Your task to perform on an android device: star an email in the gmail app Image 0: 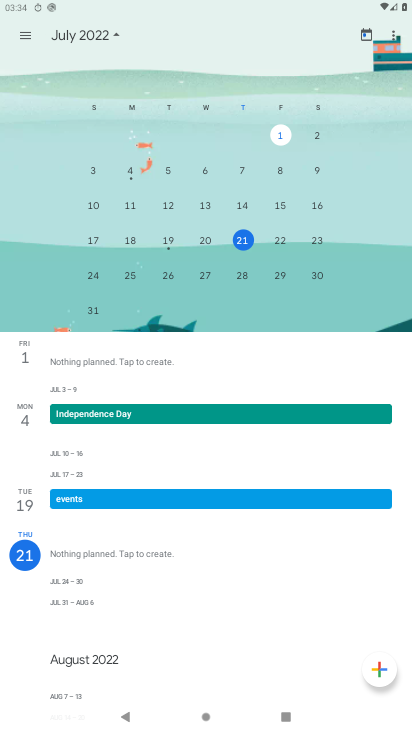
Step 0: press home button
Your task to perform on an android device: star an email in the gmail app Image 1: 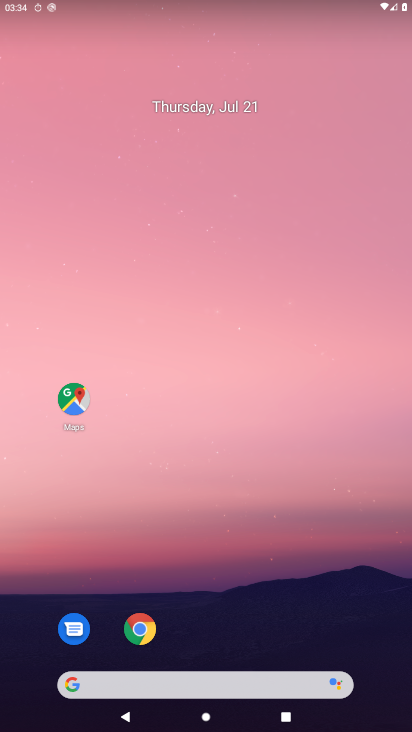
Step 1: drag from (27, 685) to (219, 144)
Your task to perform on an android device: star an email in the gmail app Image 2: 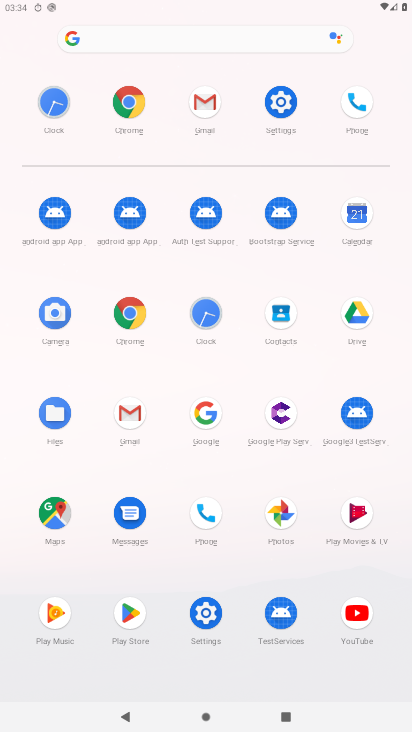
Step 2: click (201, 601)
Your task to perform on an android device: star an email in the gmail app Image 3: 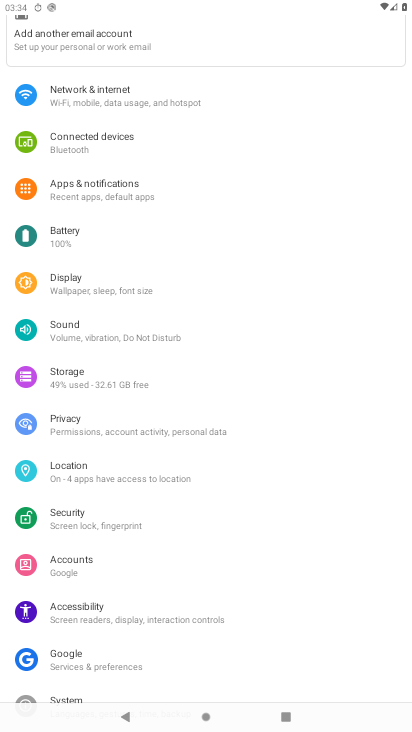
Step 3: press home button
Your task to perform on an android device: star an email in the gmail app Image 4: 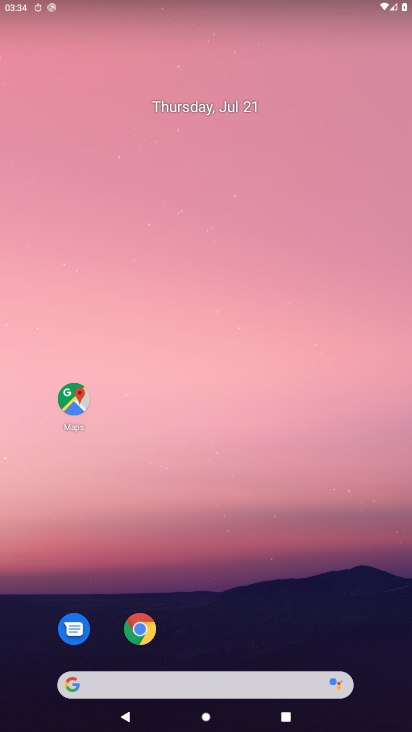
Step 4: drag from (134, 305) to (194, 88)
Your task to perform on an android device: star an email in the gmail app Image 5: 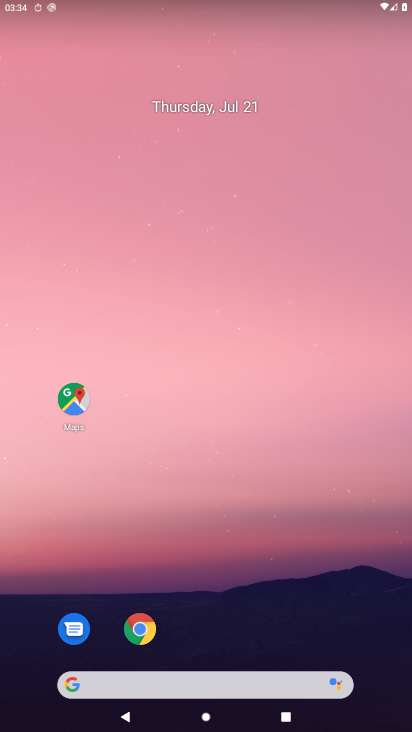
Step 5: drag from (32, 663) to (206, 20)
Your task to perform on an android device: star an email in the gmail app Image 6: 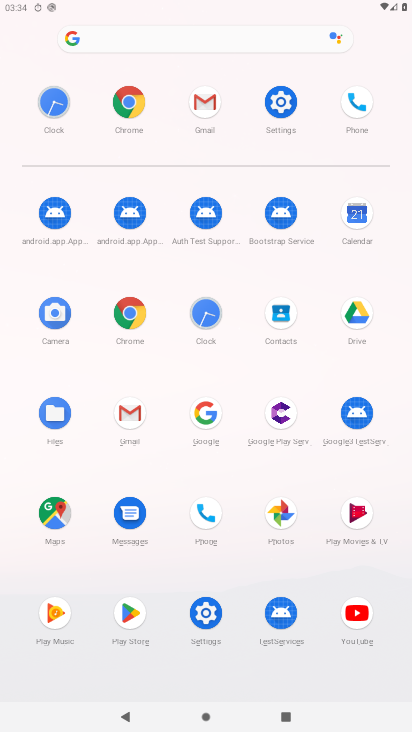
Step 6: click (125, 486)
Your task to perform on an android device: star an email in the gmail app Image 7: 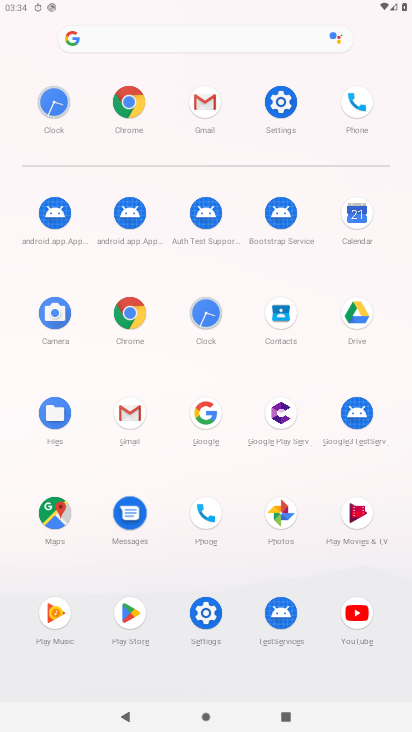
Step 7: click (125, 411)
Your task to perform on an android device: star an email in the gmail app Image 8: 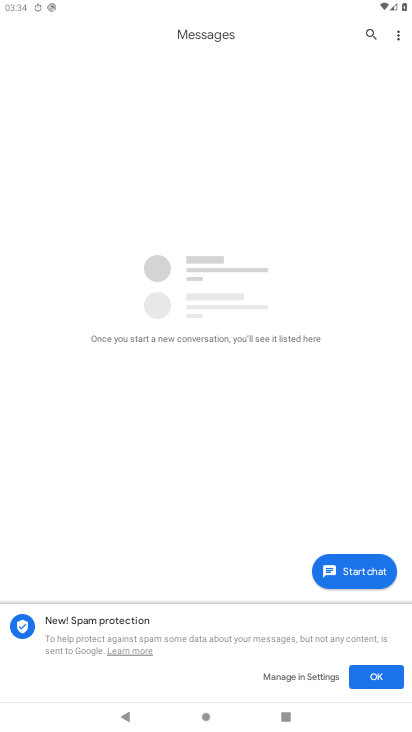
Step 8: task complete